Your task to perform on an android device: change keyboard looks Image 0: 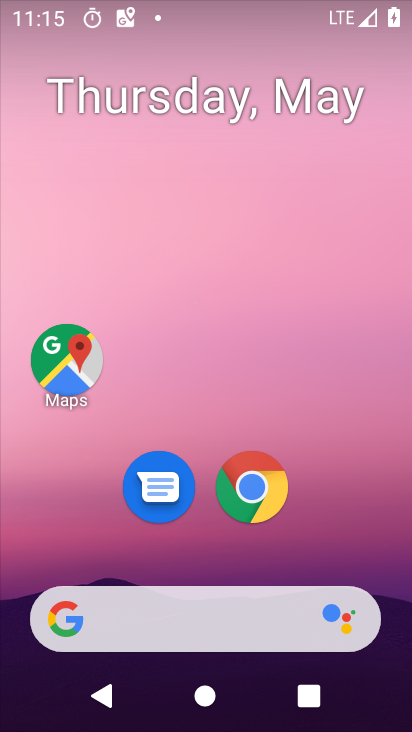
Step 0: drag from (268, 620) to (317, 108)
Your task to perform on an android device: change keyboard looks Image 1: 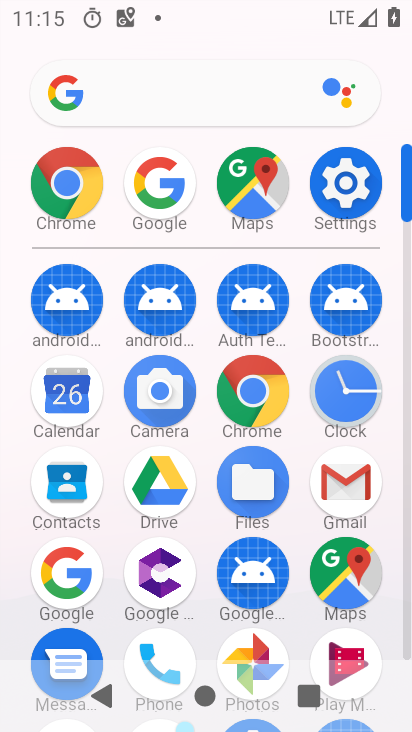
Step 1: click (349, 193)
Your task to perform on an android device: change keyboard looks Image 2: 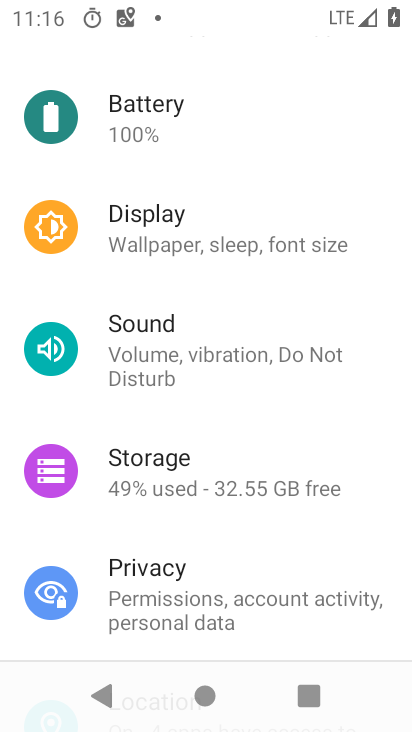
Step 2: drag from (256, 572) to (325, 201)
Your task to perform on an android device: change keyboard looks Image 3: 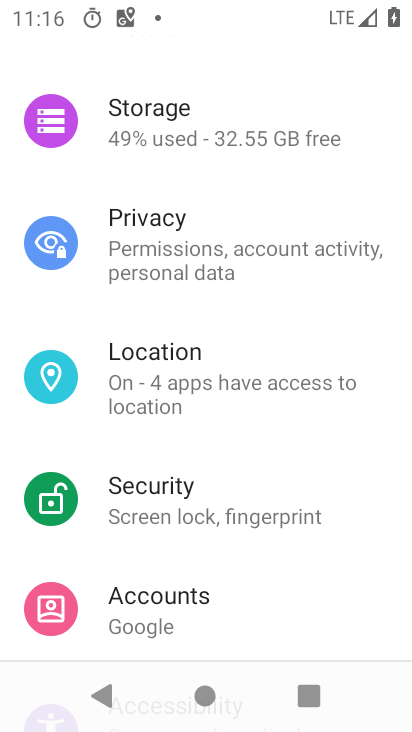
Step 3: drag from (219, 525) to (279, 112)
Your task to perform on an android device: change keyboard looks Image 4: 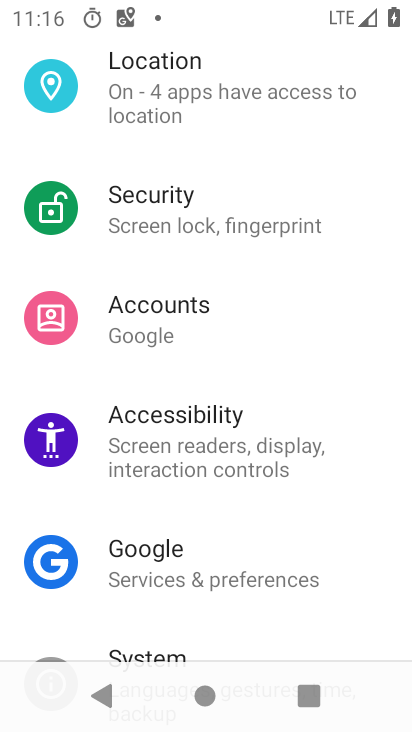
Step 4: drag from (155, 522) to (191, 163)
Your task to perform on an android device: change keyboard looks Image 5: 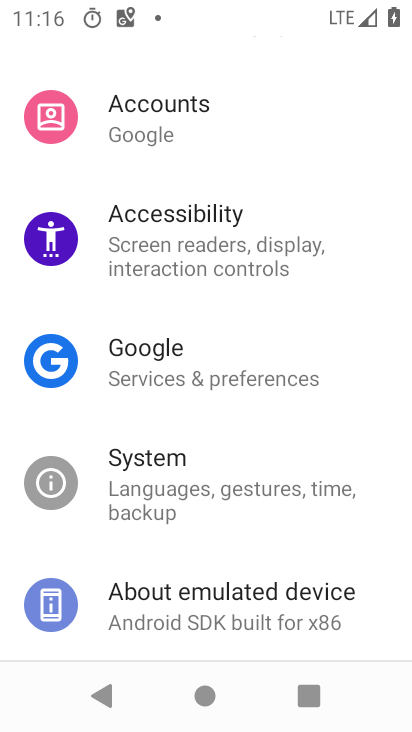
Step 5: click (223, 501)
Your task to perform on an android device: change keyboard looks Image 6: 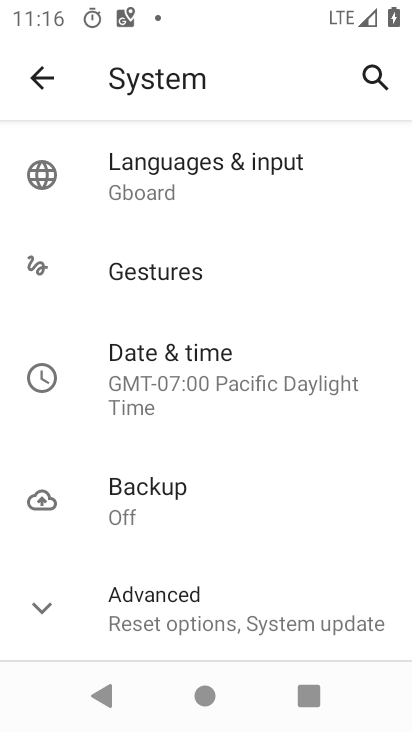
Step 6: click (248, 183)
Your task to perform on an android device: change keyboard looks Image 7: 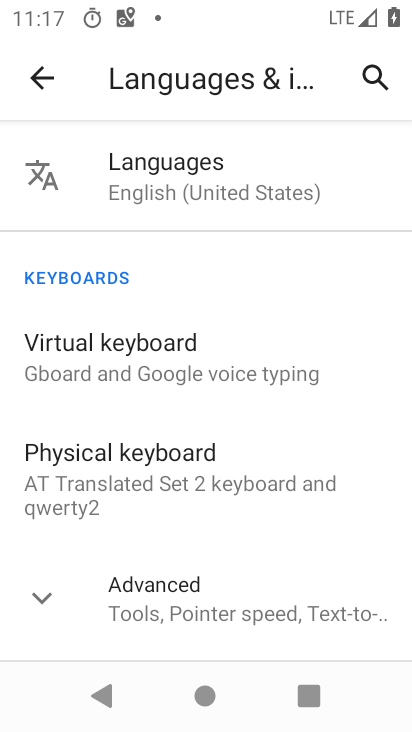
Step 7: click (195, 369)
Your task to perform on an android device: change keyboard looks Image 8: 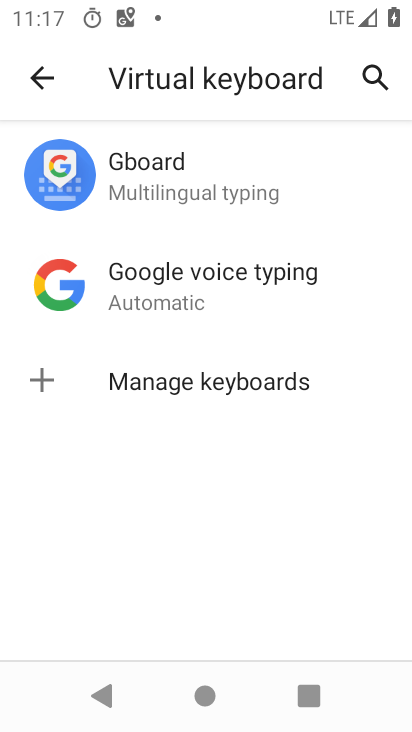
Step 8: click (196, 194)
Your task to perform on an android device: change keyboard looks Image 9: 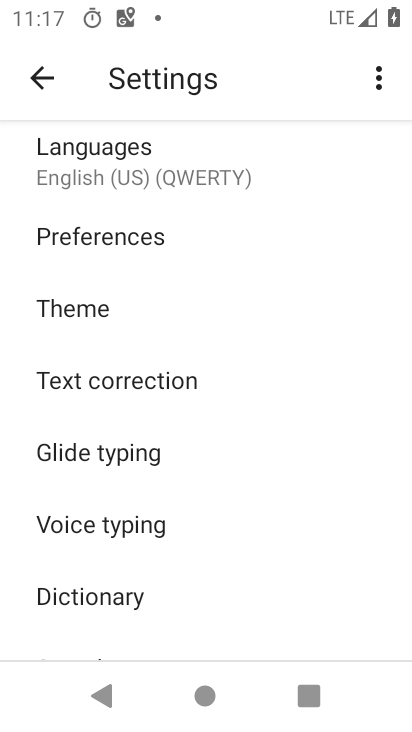
Step 9: click (118, 302)
Your task to perform on an android device: change keyboard looks Image 10: 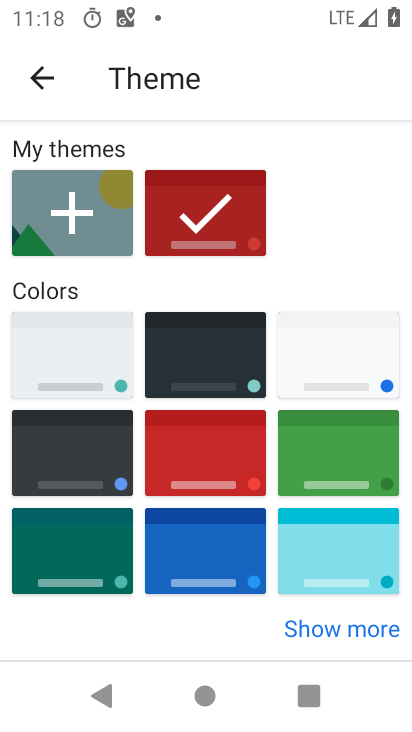
Step 10: click (108, 430)
Your task to perform on an android device: change keyboard looks Image 11: 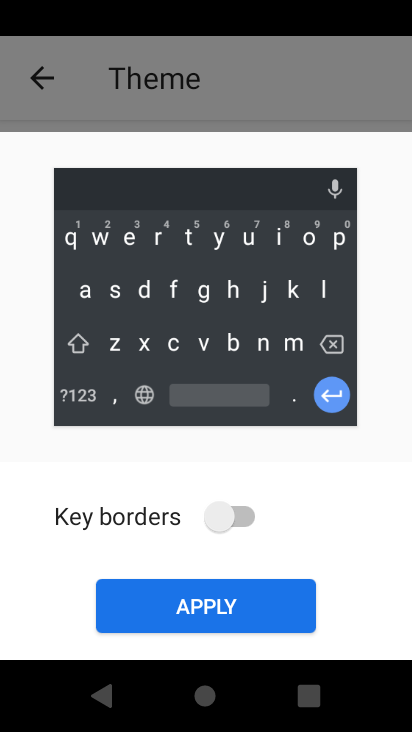
Step 11: click (272, 605)
Your task to perform on an android device: change keyboard looks Image 12: 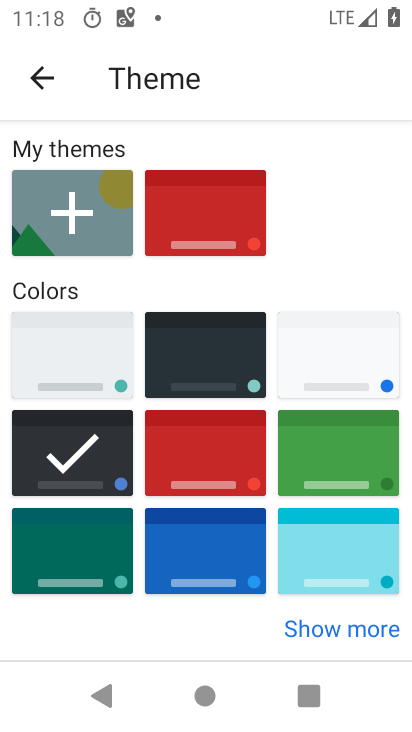
Step 12: task complete